Your task to perform on an android device: empty trash in the gmail app Image 0: 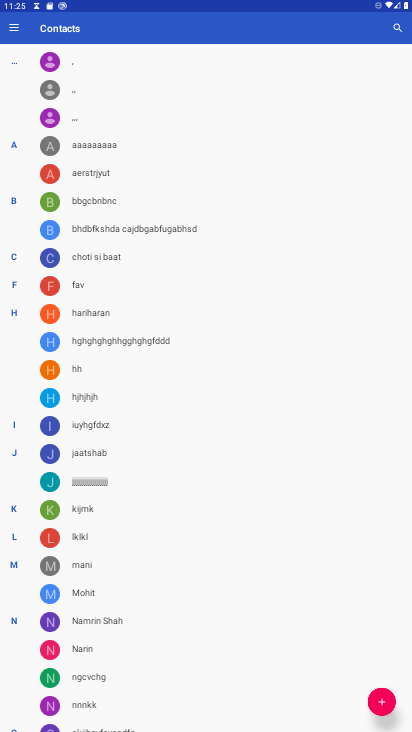
Step 0: press home button
Your task to perform on an android device: empty trash in the gmail app Image 1: 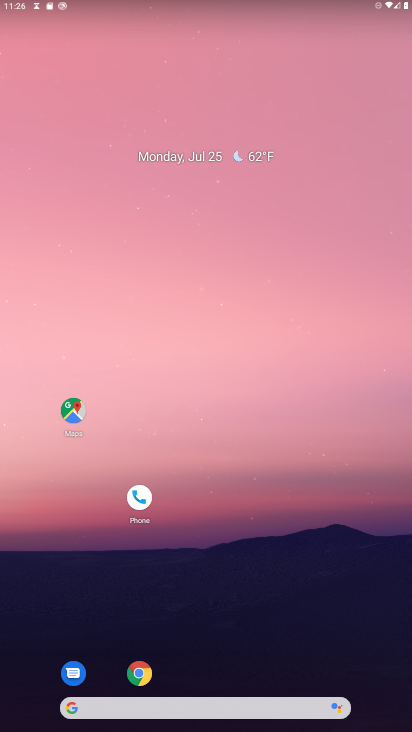
Step 1: drag from (232, 468) to (249, 18)
Your task to perform on an android device: empty trash in the gmail app Image 2: 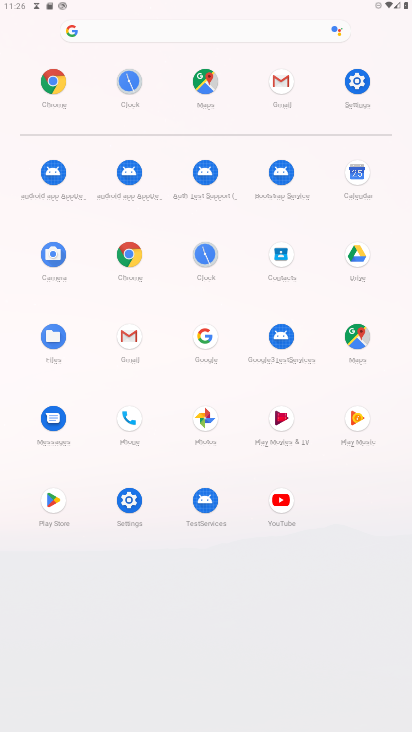
Step 2: click (278, 82)
Your task to perform on an android device: empty trash in the gmail app Image 3: 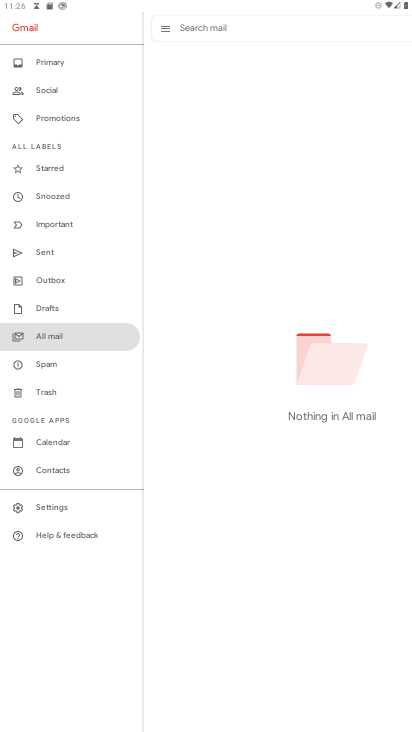
Step 3: click (44, 388)
Your task to perform on an android device: empty trash in the gmail app Image 4: 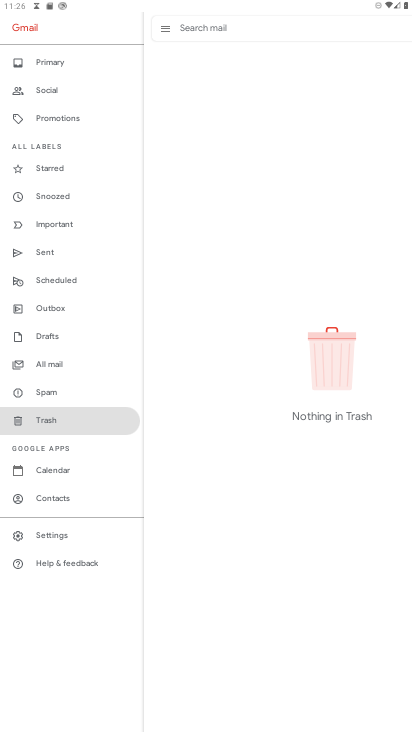
Step 4: task complete